Your task to perform on an android device: add a contact in the contacts app Image 0: 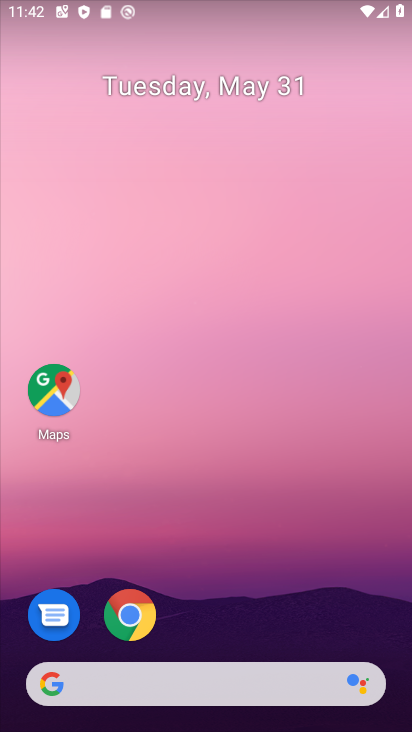
Step 0: task complete